Your task to perform on an android device: star an email in the gmail app Image 0: 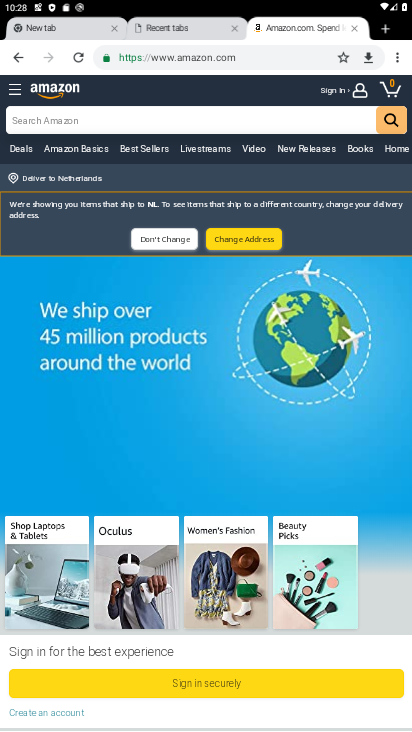
Step 0: press home button
Your task to perform on an android device: star an email in the gmail app Image 1: 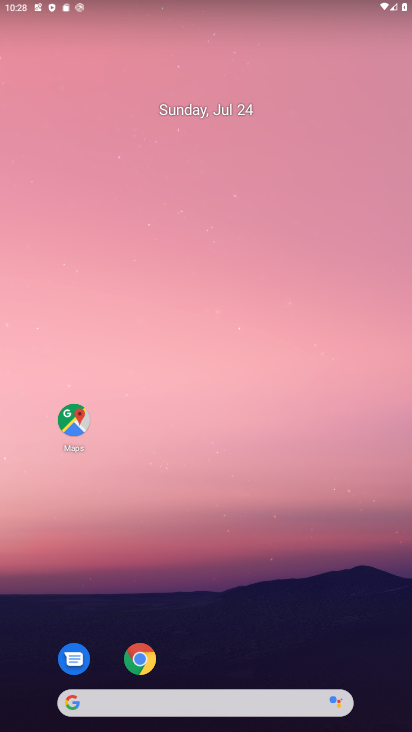
Step 1: drag from (411, 702) to (356, 78)
Your task to perform on an android device: star an email in the gmail app Image 2: 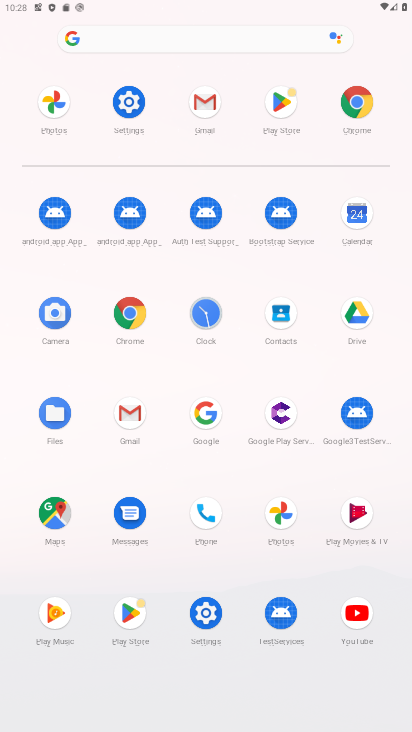
Step 2: click (128, 406)
Your task to perform on an android device: star an email in the gmail app Image 3: 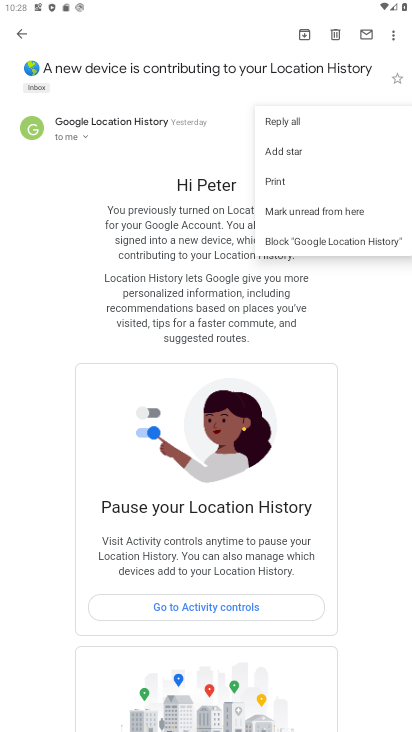
Step 3: click (394, 38)
Your task to perform on an android device: star an email in the gmail app Image 4: 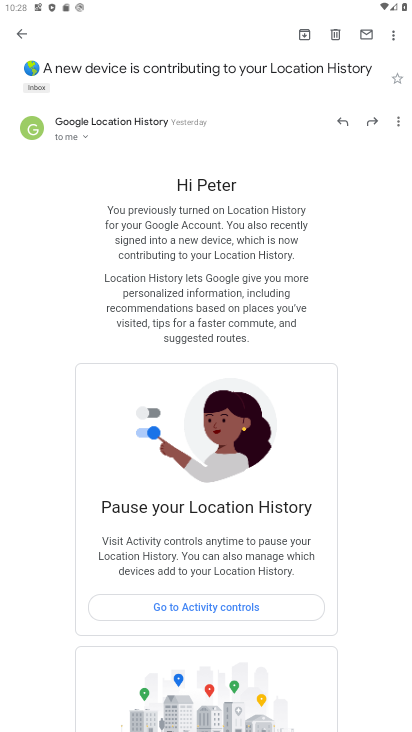
Step 4: click (390, 76)
Your task to perform on an android device: star an email in the gmail app Image 5: 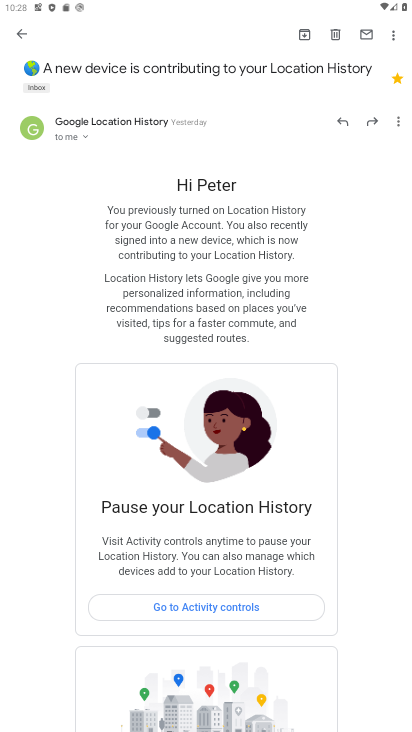
Step 5: task complete